Your task to perform on an android device: open chrome and create a bookmark for the current page Image 0: 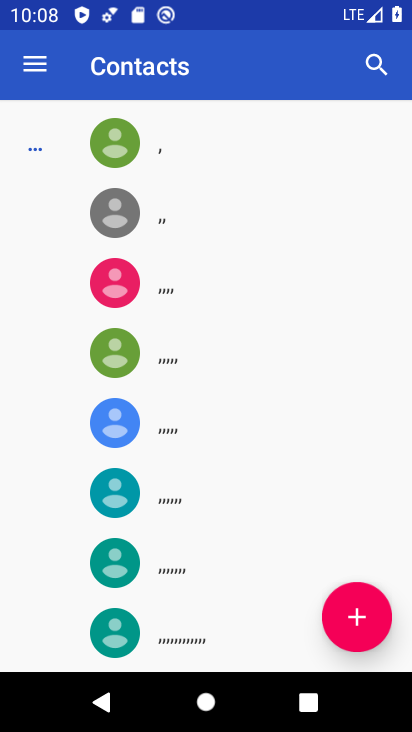
Step 0: press home button
Your task to perform on an android device: open chrome and create a bookmark for the current page Image 1: 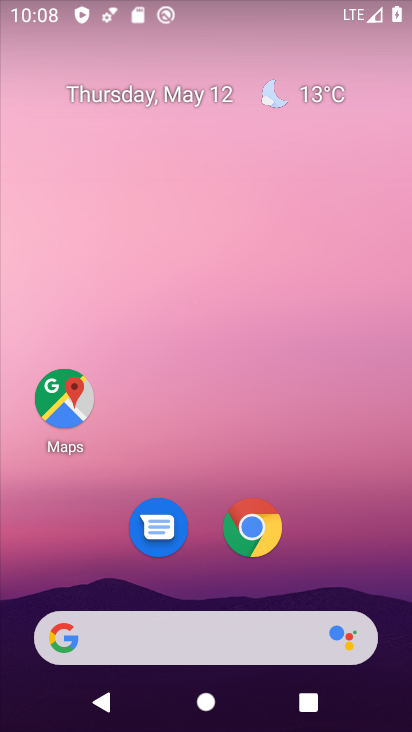
Step 1: click (245, 520)
Your task to perform on an android device: open chrome and create a bookmark for the current page Image 2: 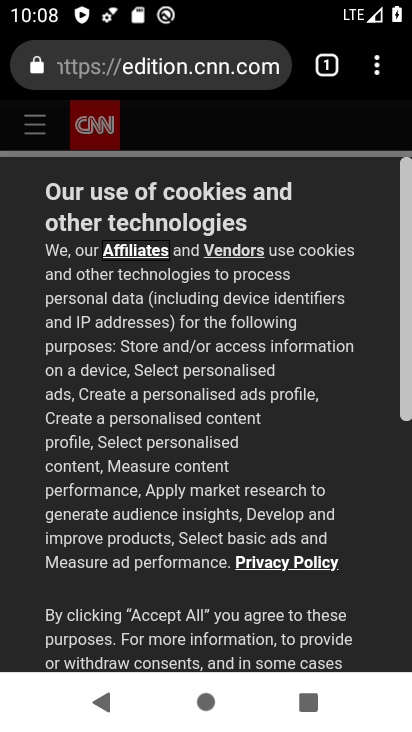
Step 2: click (376, 67)
Your task to perform on an android device: open chrome and create a bookmark for the current page Image 3: 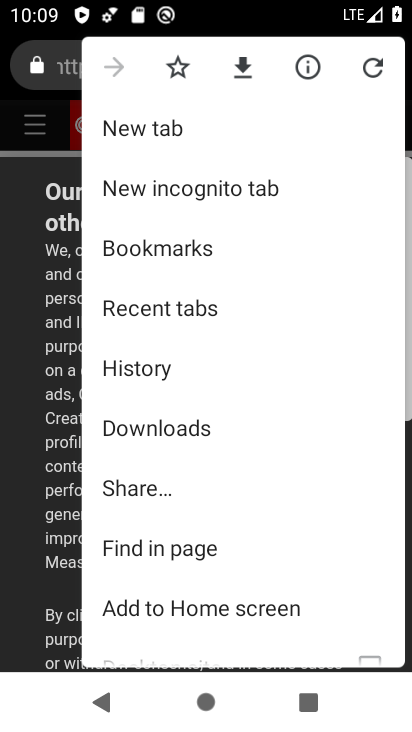
Step 3: click (176, 65)
Your task to perform on an android device: open chrome and create a bookmark for the current page Image 4: 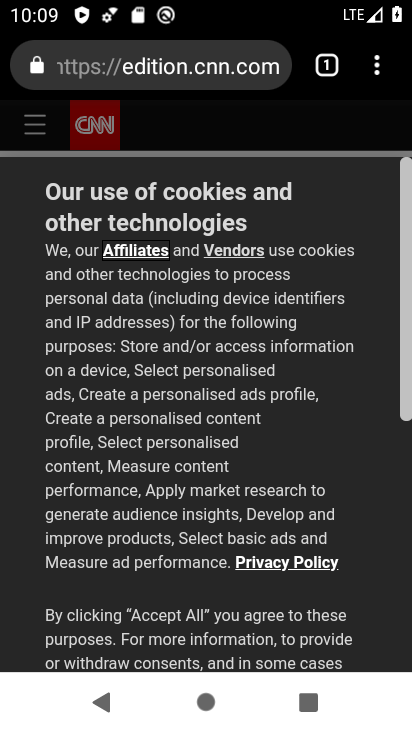
Step 4: task complete